Your task to perform on an android device: see tabs open on other devices in the chrome app Image 0: 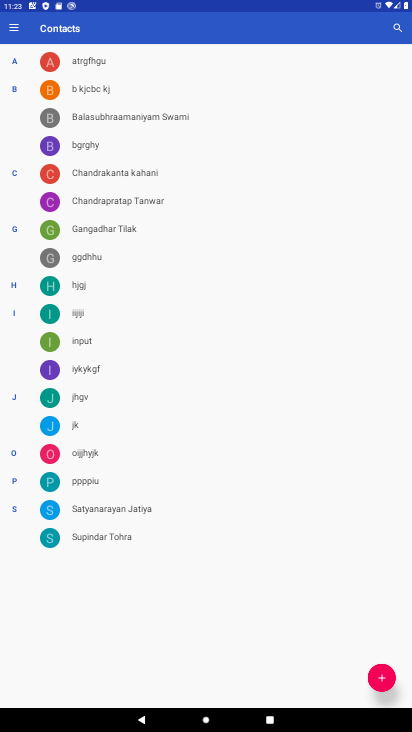
Step 0: press home button
Your task to perform on an android device: see tabs open on other devices in the chrome app Image 1: 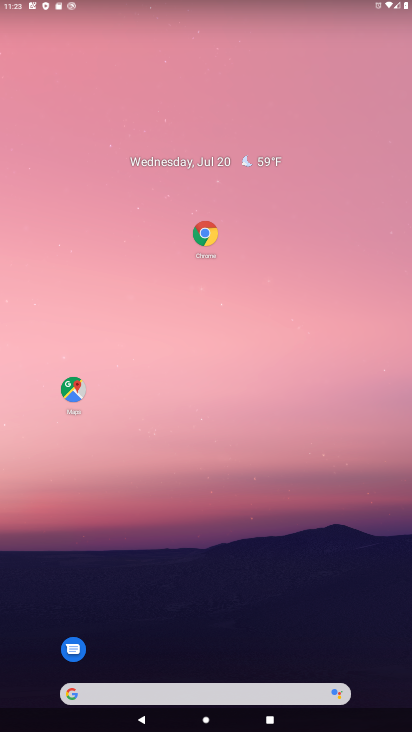
Step 1: click (206, 234)
Your task to perform on an android device: see tabs open on other devices in the chrome app Image 2: 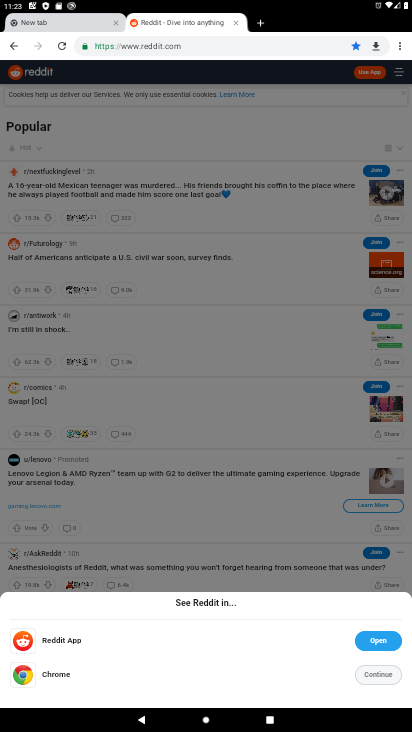
Step 2: click (395, 49)
Your task to perform on an android device: see tabs open on other devices in the chrome app Image 3: 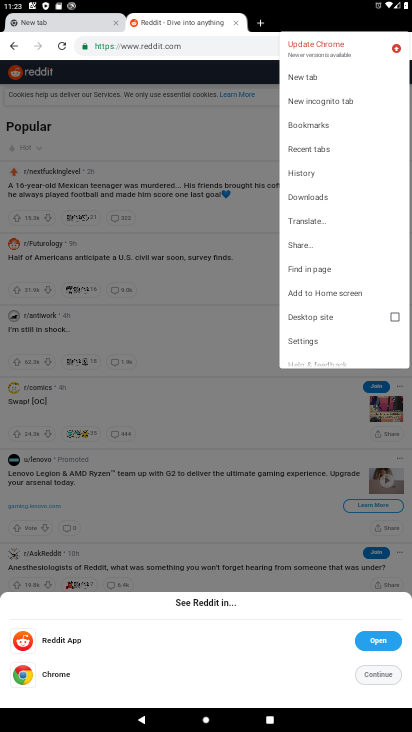
Step 3: click (310, 148)
Your task to perform on an android device: see tabs open on other devices in the chrome app Image 4: 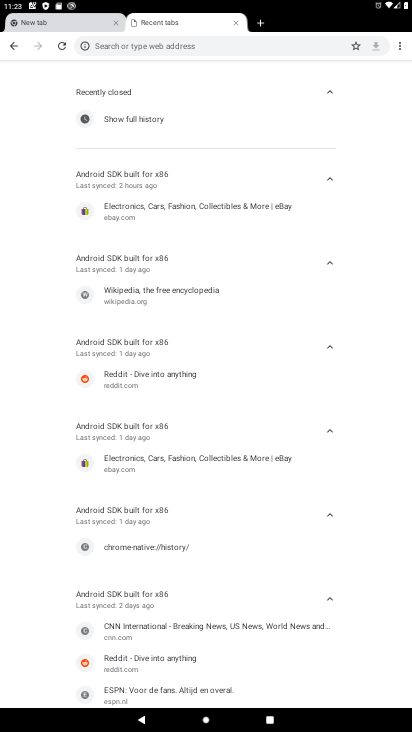
Step 4: task complete